Your task to perform on an android device: What's the weather going to be tomorrow? Image 0: 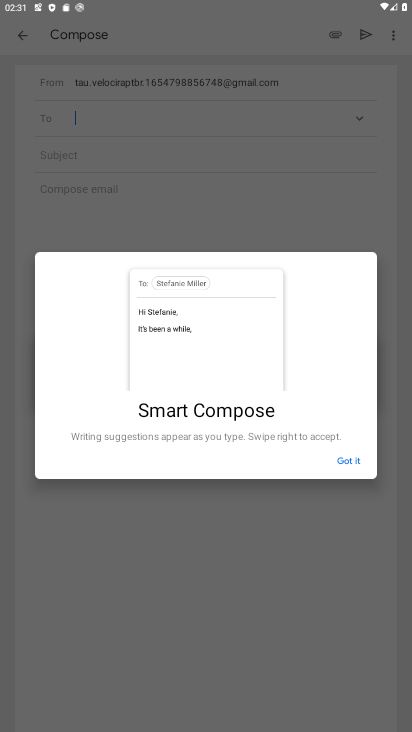
Step 0: press home button
Your task to perform on an android device: What's the weather going to be tomorrow? Image 1: 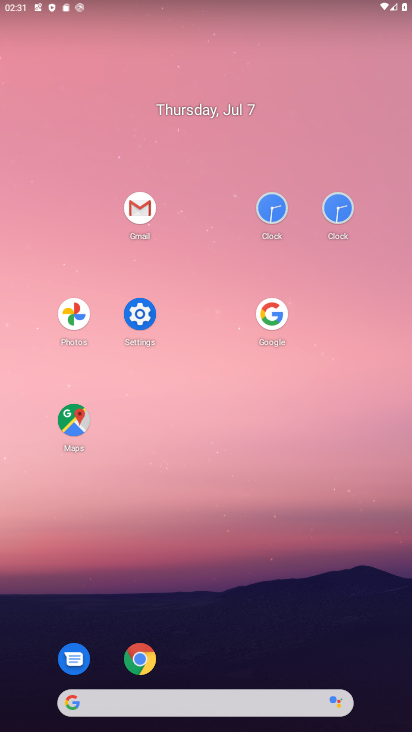
Step 1: click (283, 311)
Your task to perform on an android device: What's the weather going to be tomorrow? Image 2: 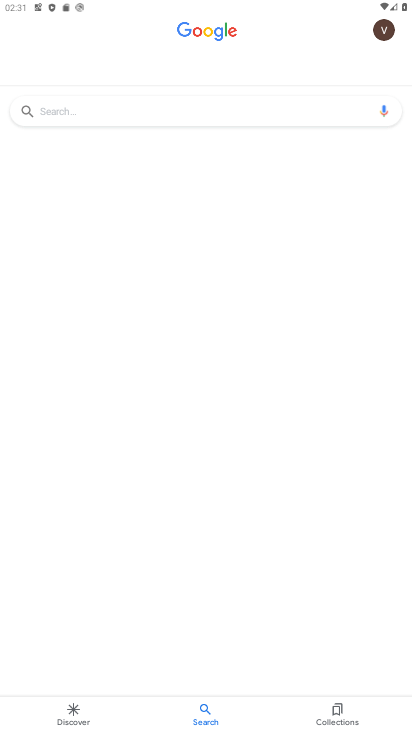
Step 2: click (99, 118)
Your task to perform on an android device: What's the weather going to be tomorrow? Image 3: 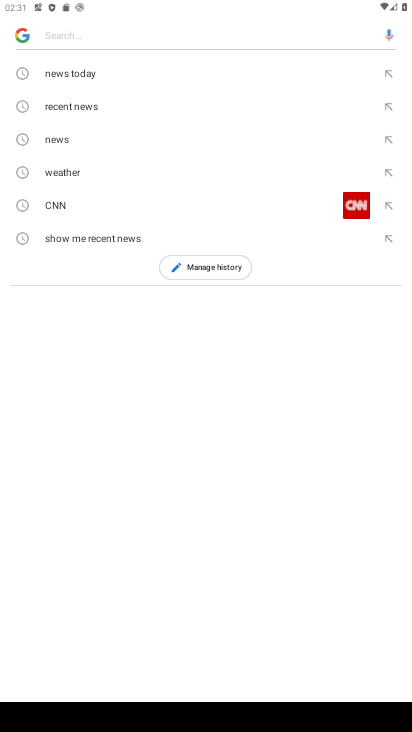
Step 3: click (110, 168)
Your task to perform on an android device: What's the weather going to be tomorrow? Image 4: 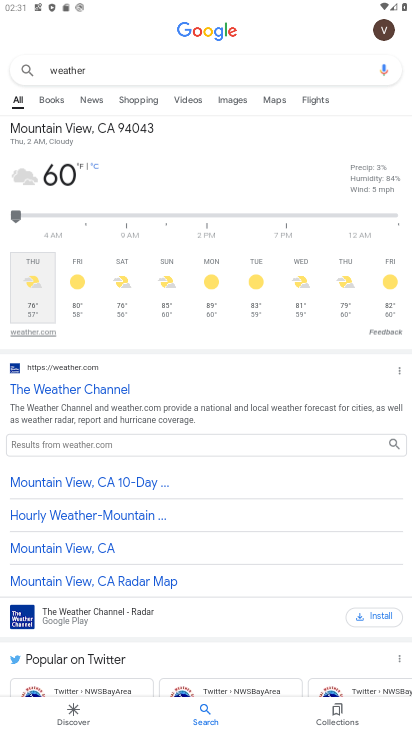
Step 4: click (78, 260)
Your task to perform on an android device: What's the weather going to be tomorrow? Image 5: 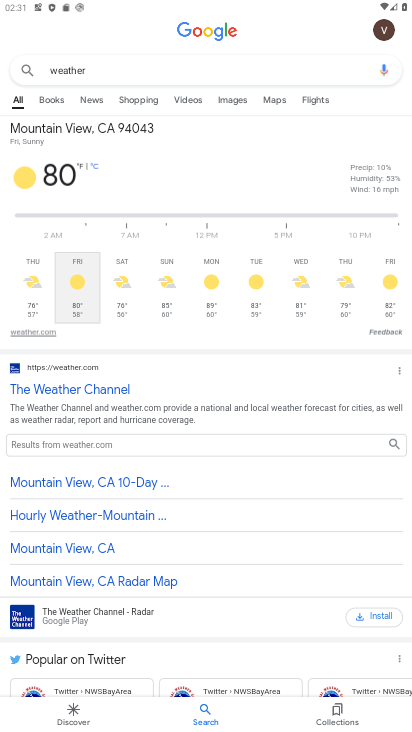
Step 5: task complete